Your task to perform on an android device: Open my contact list Image 0: 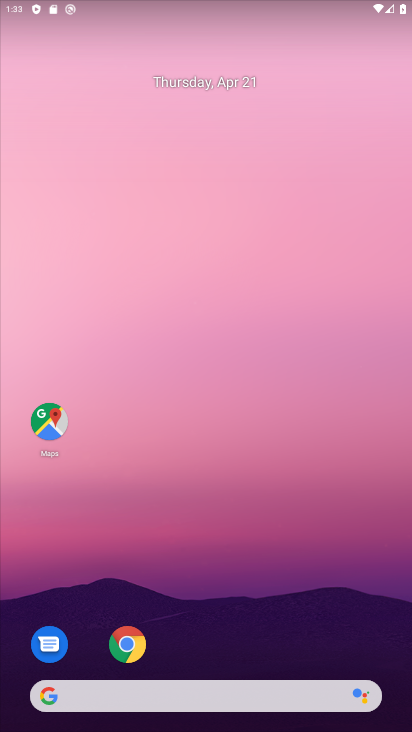
Step 0: drag from (220, 617) to (217, 188)
Your task to perform on an android device: Open my contact list Image 1: 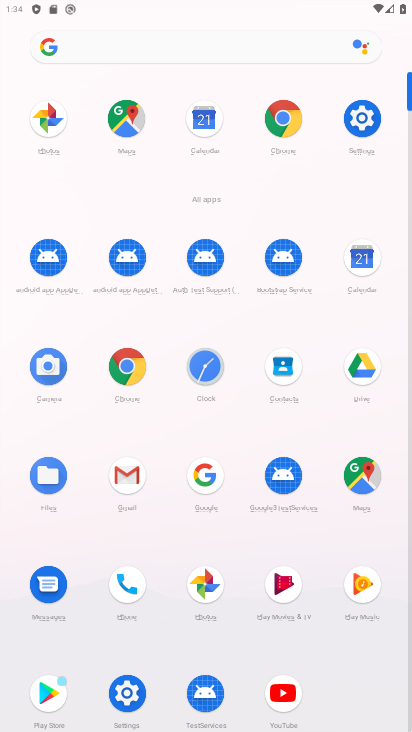
Step 1: click (289, 372)
Your task to perform on an android device: Open my contact list Image 2: 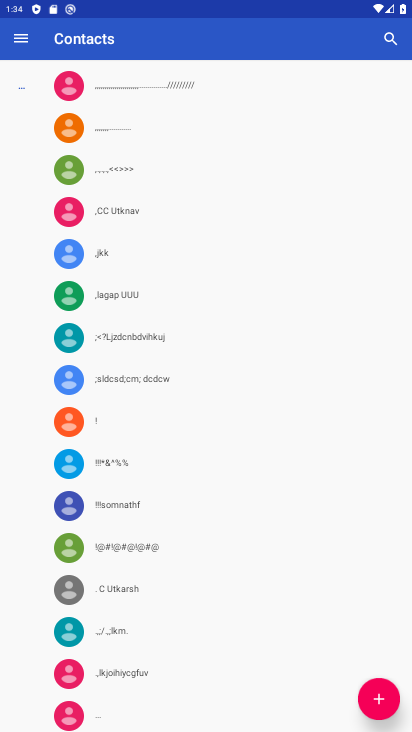
Step 2: task complete